Your task to perform on an android device: Open Amazon Image 0: 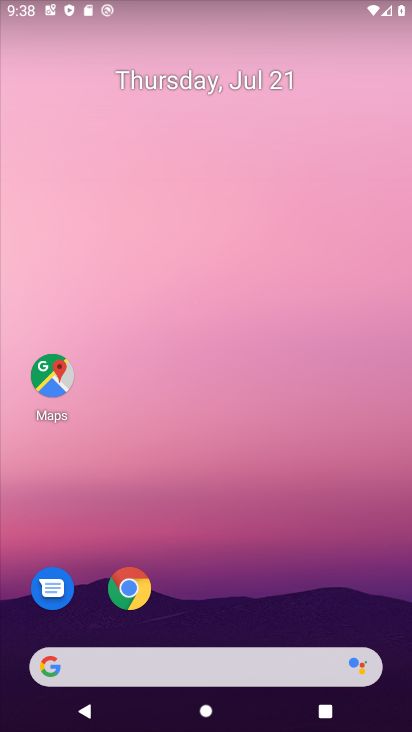
Step 0: drag from (202, 604) to (206, 74)
Your task to perform on an android device: Open Amazon Image 1: 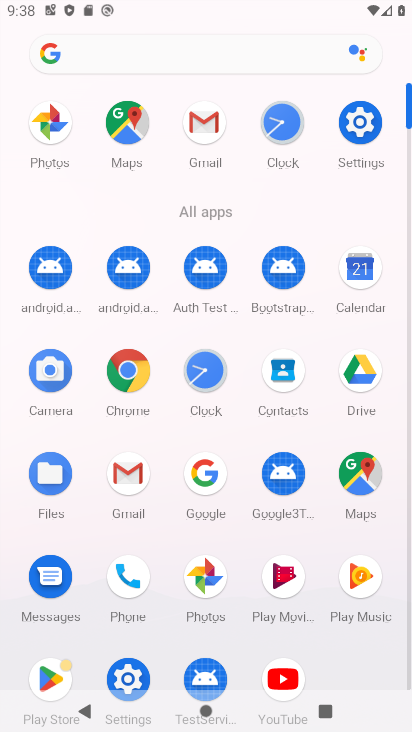
Step 1: click (123, 371)
Your task to perform on an android device: Open Amazon Image 2: 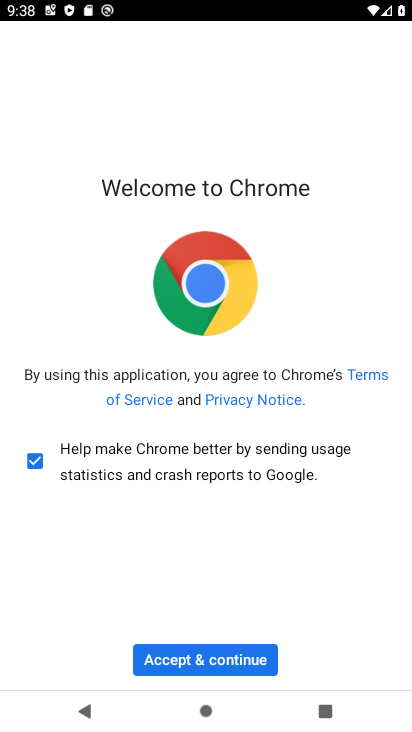
Step 2: click (197, 657)
Your task to perform on an android device: Open Amazon Image 3: 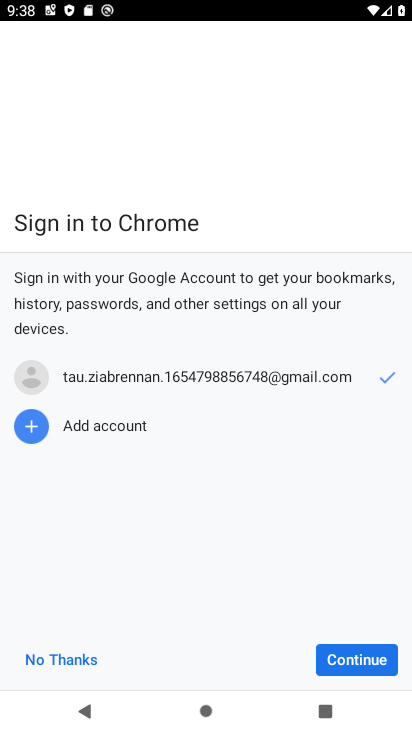
Step 3: click (352, 664)
Your task to perform on an android device: Open Amazon Image 4: 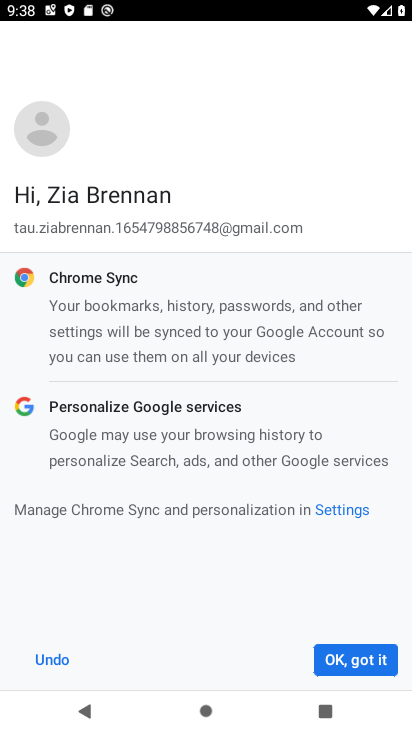
Step 4: click (352, 664)
Your task to perform on an android device: Open Amazon Image 5: 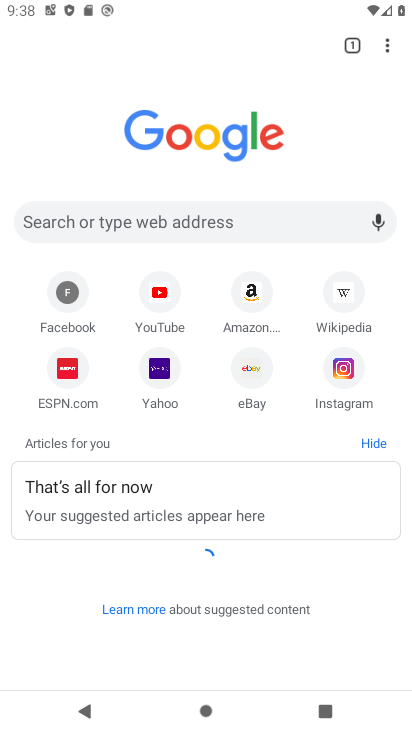
Step 5: click (246, 296)
Your task to perform on an android device: Open Amazon Image 6: 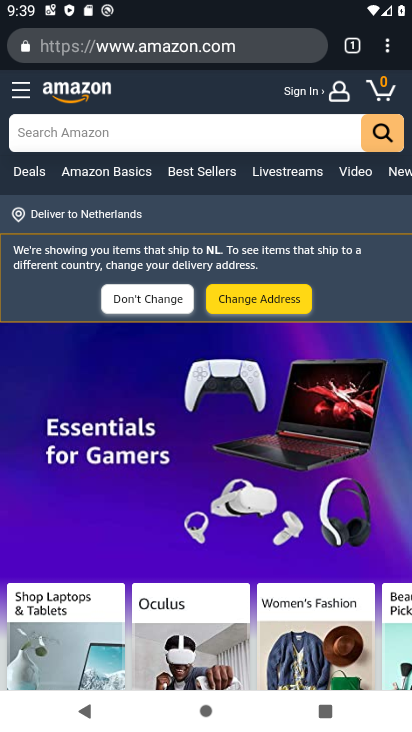
Step 6: task complete